Your task to perform on an android device: Show me popular videos on Youtube Image 0: 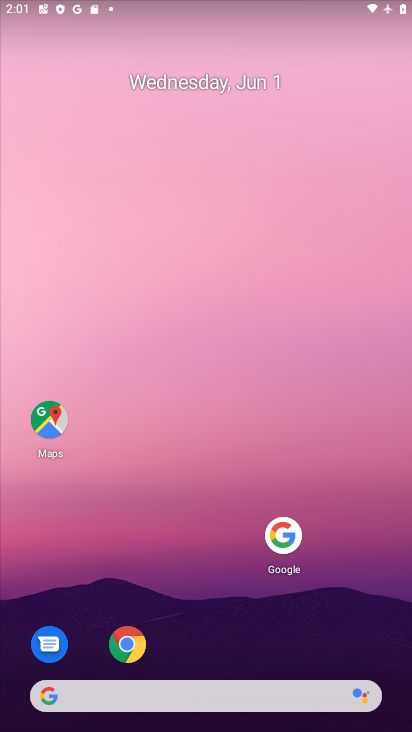
Step 0: press home button
Your task to perform on an android device: Show me popular videos on Youtube Image 1: 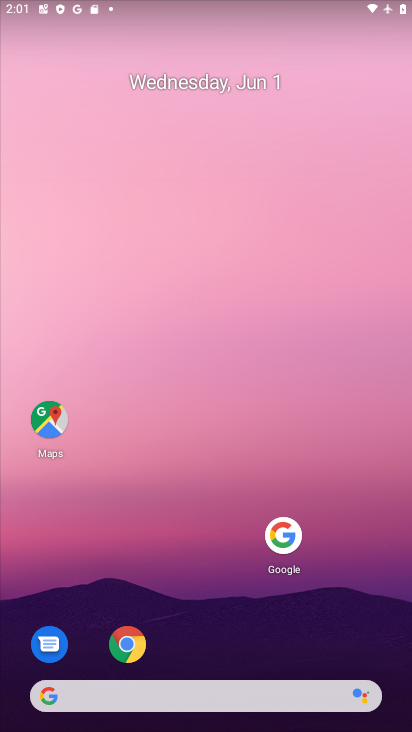
Step 1: drag from (196, 697) to (318, 149)
Your task to perform on an android device: Show me popular videos on Youtube Image 2: 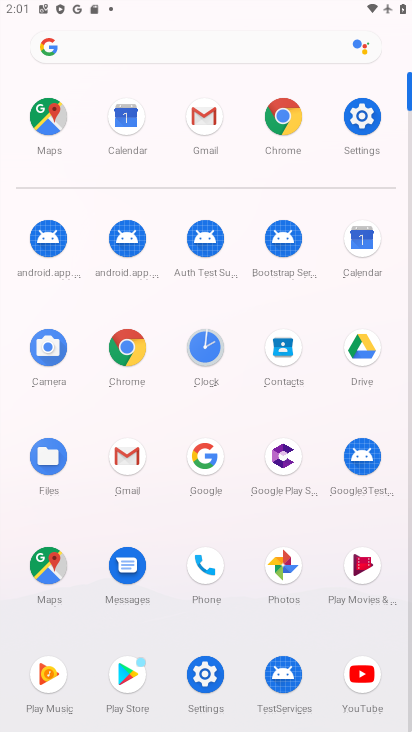
Step 2: click (361, 668)
Your task to perform on an android device: Show me popular videos on Youtube Image 3: 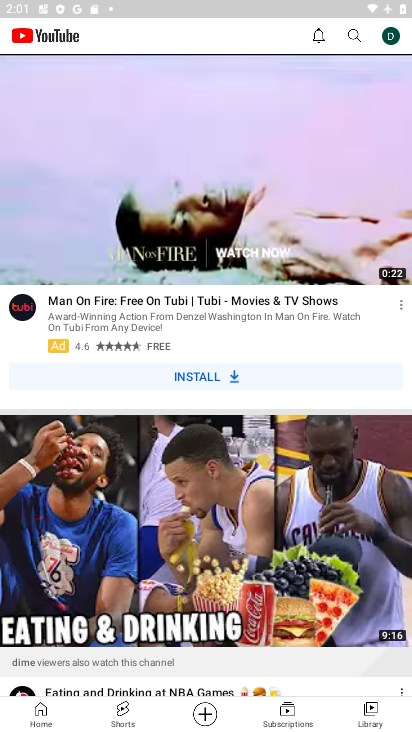
Step 3: task complete